Your task to perform on an android device: add a label to a message in the gmail app Image 0: 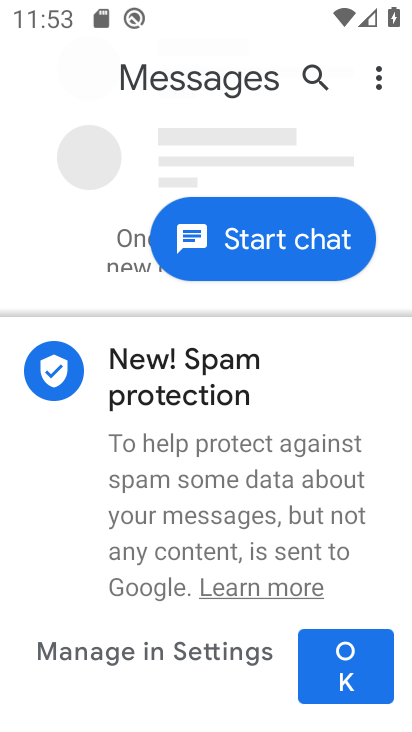
Step 0: press home button
Your task to perform on an android device: add a label to a message in the gmail app Image 1: 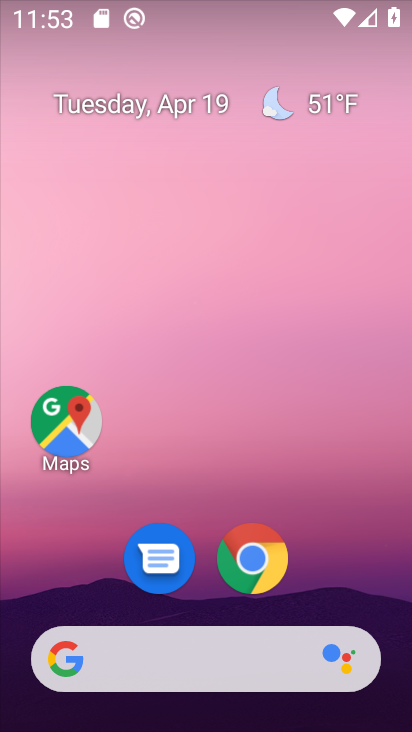
Step 1: drag from (346, 540) to (280, 195)
Your task to perform on an android device: add a label to a message in the gmail app Image 2: 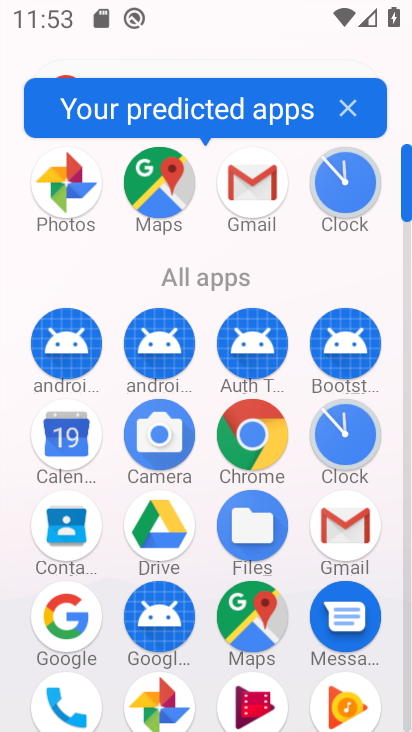
Step 2: click (406, 695)
Your task to perform on an android device: add a label to a message in the gmail app Image 3: 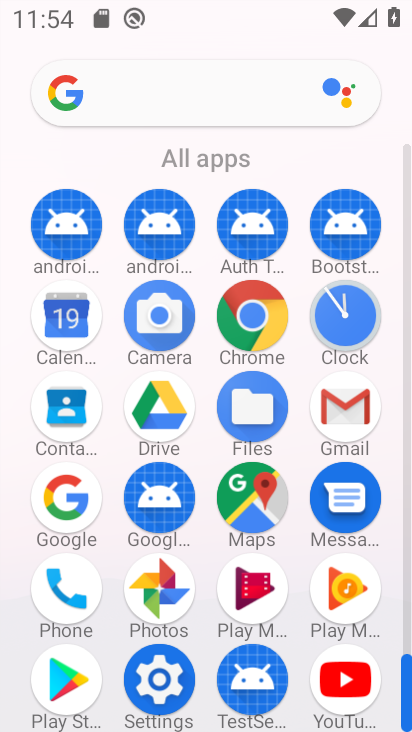
Step 3: click (343, 407)
Your task to perform on an android device: add a label to a message in the gmail app Image 4: 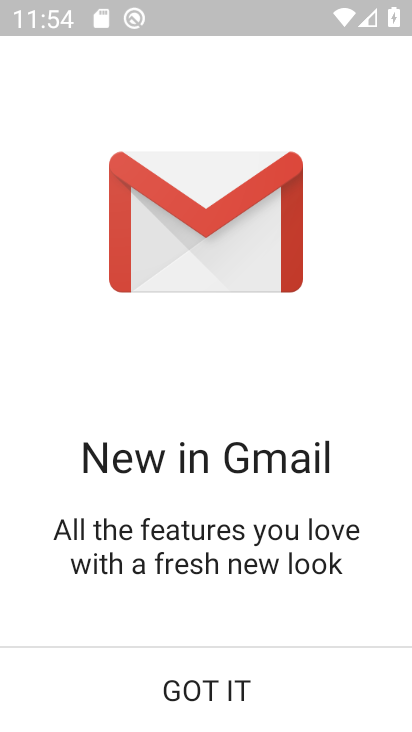
Step 4: click (199, 697)
Your task to perform on an android device: add a label to a message in the gmail app Image 5: 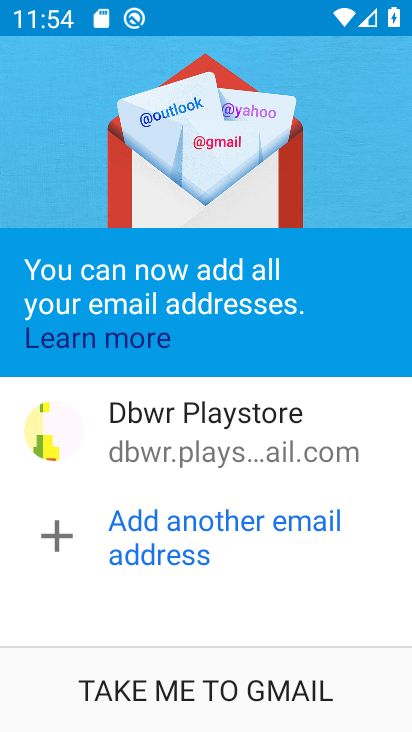
Step 5: click (173, 698)
Your task to perform on an android device: add a label to a message in the gmail app Image 6: 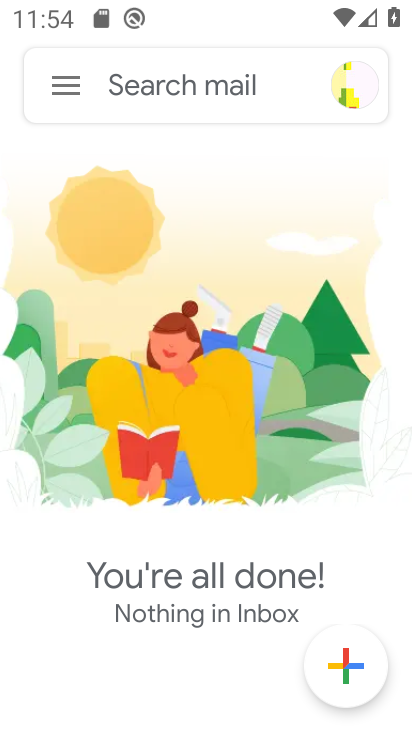
Step 6: click (62, 76)
Your task to perform on an android device: add a label to a message in the gmail app Image 7: 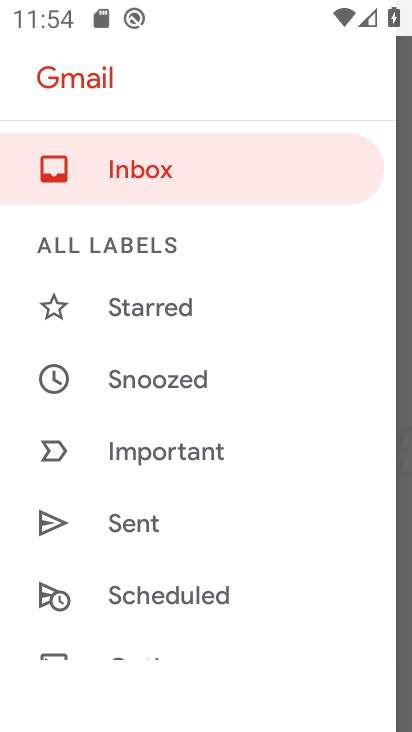
Step 7: click (146, 156)
Your task to perform on an android device: add a label to a message in the gmail app Image 8: 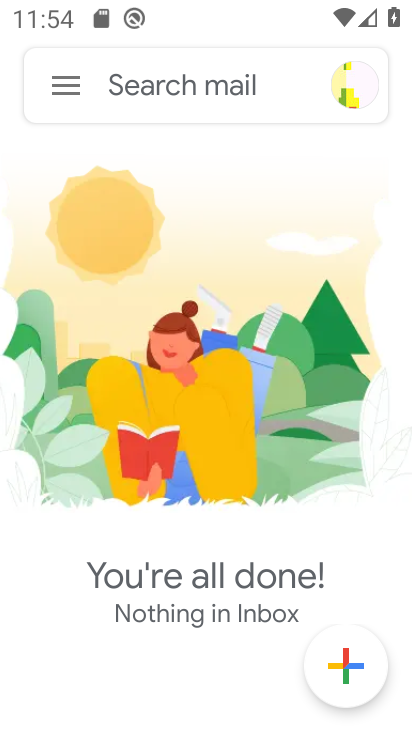
Step 8: task complete